Your task to perform on an android device: Open display settings Image 0: 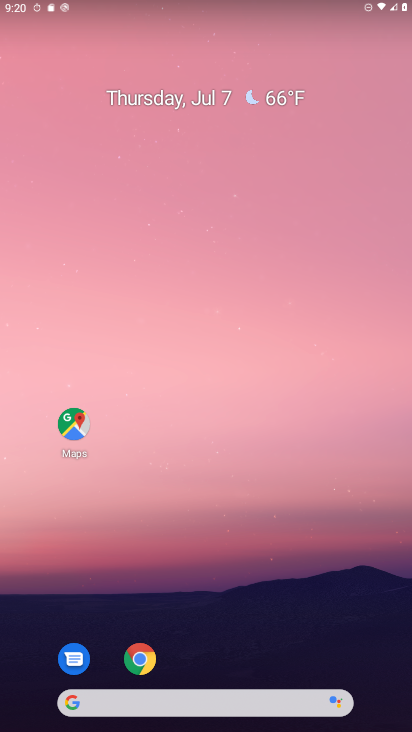
Step 0: drag from (362, 675) to (245, 33)
Your task to perform on an android device: Open display settings Image 1: 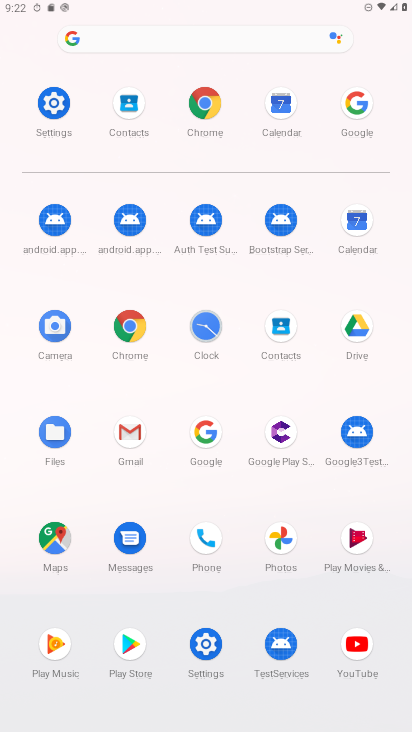
Step 1: click (199, 649)
Your task to perform on an android device: Open display settings Image 2: 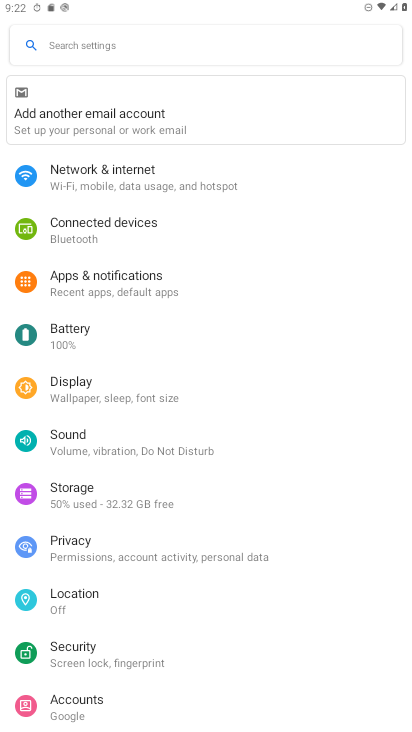
Step 2: click (92, 385)
Your task to perform on an android device: Open display settings Image 3: 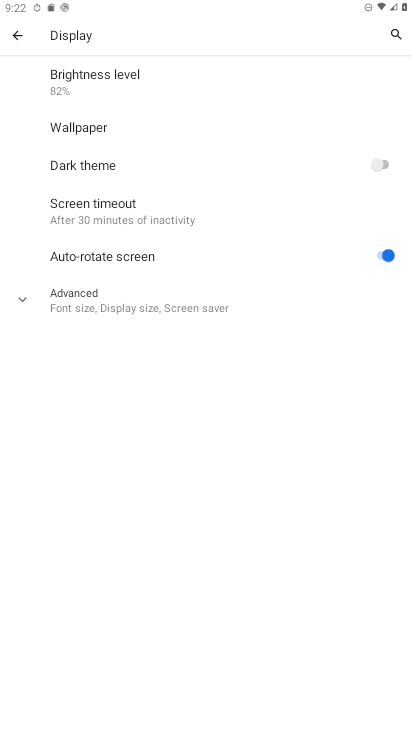
Step 3: task complete